Your task to perform on an android device: turn on data saver in the chrome app Image 0: 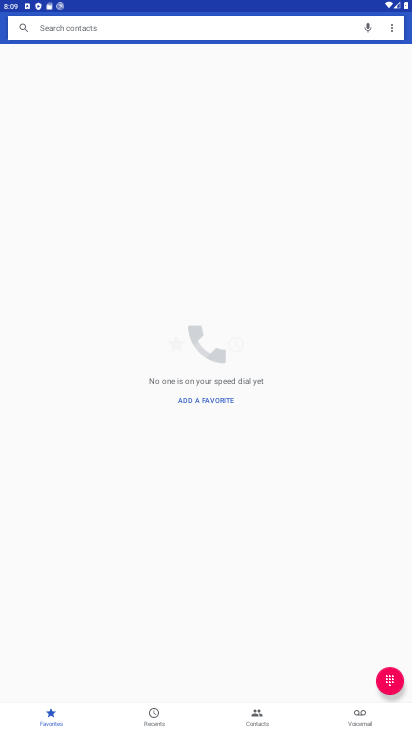
Step 0: press home button
Your task to perform on an android device: turn on data saver in the chrome app Image 1: 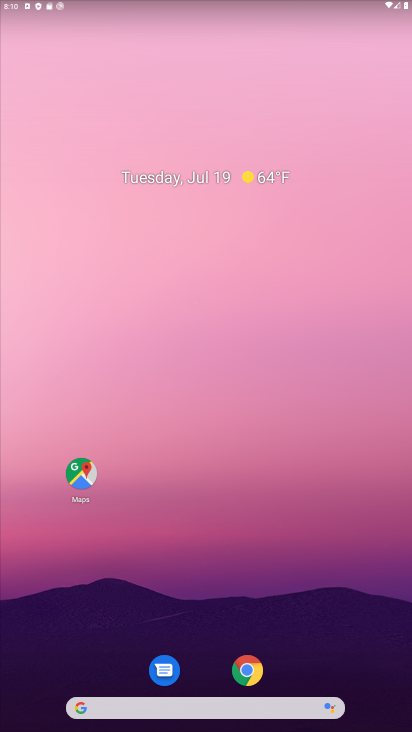
Step 1: drag from (219, 448) to (215, 85)
Your task to perform on an android device: turn on data saver in the chrome app Image 2: 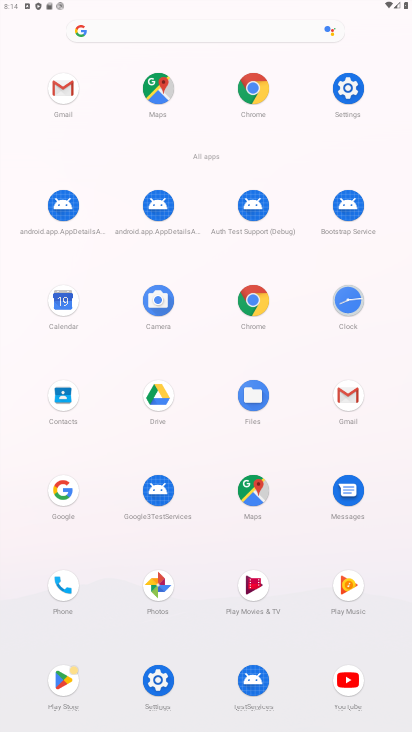
Step 2: click (246, 93)
Your task to perform on an android device: turn on data saver in the chrome app Image 3: 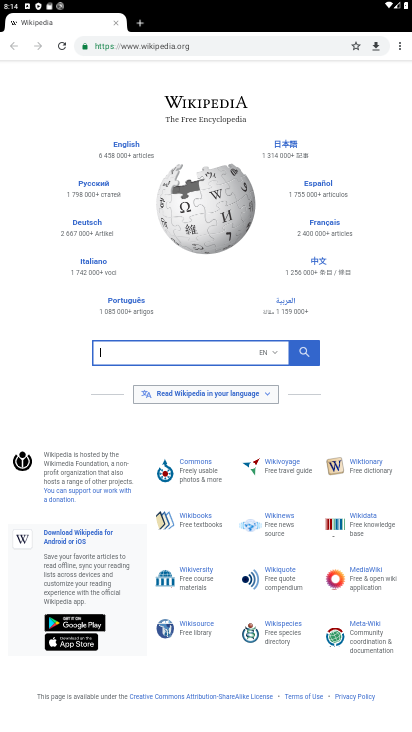
Step 3: click (400, 42)
Your task to perform on an android device: turn on data saver in the chrome app Image 4: 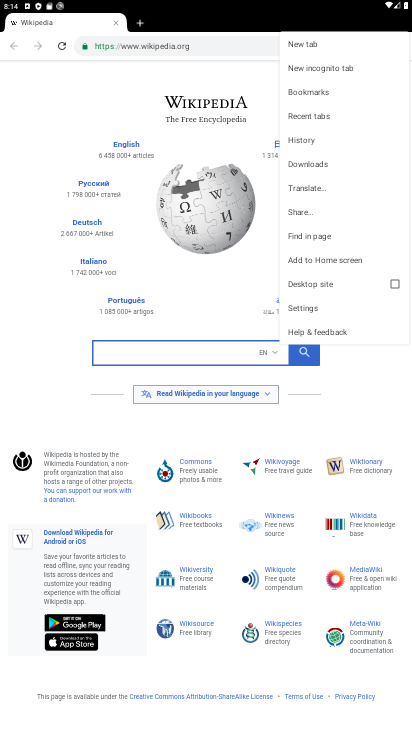
Step 4: click (305, 309)
Your task to perform on an android device: turn on data saver in the chrome app Image 5: 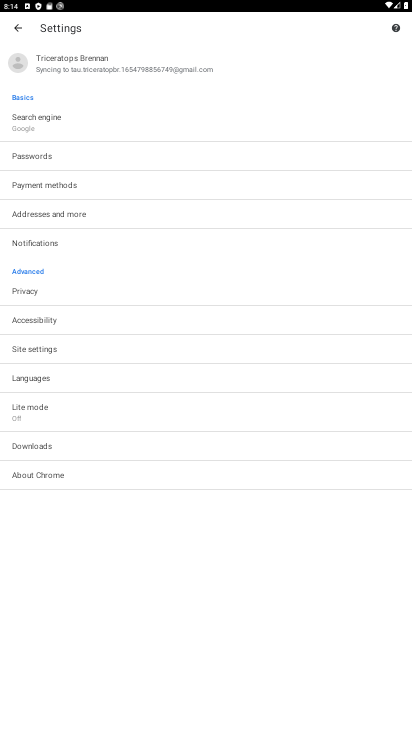
Step 5: click (75, 412)
Your task to perform on an android device: turn on data saver in the chrome app Image 6: 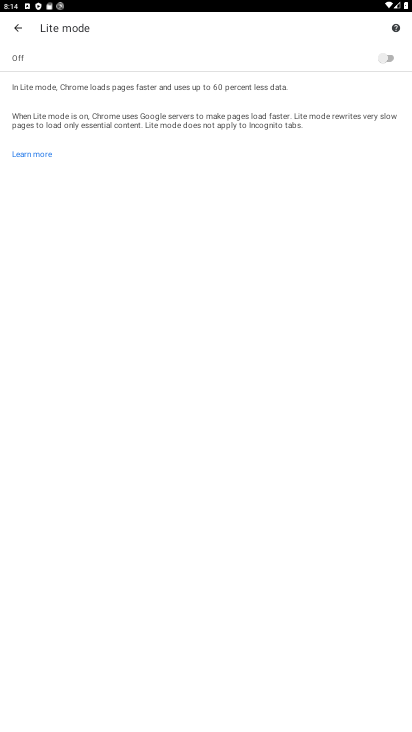
Step 6: click (384, 54)
Your task to perform on an android device: turn on data saver in the chrome app Image 7: 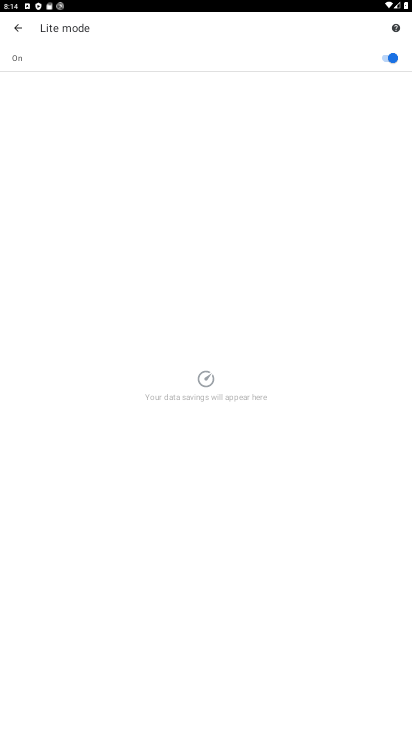
Step 7: task complete